Your task to perform on an android device: delete a single message in the gmail app Image 0: 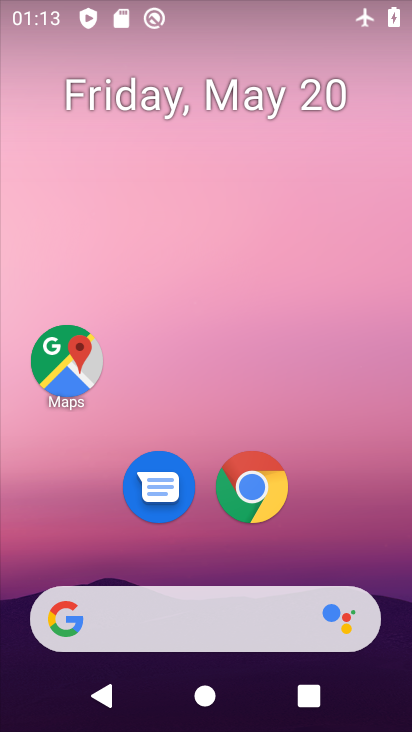
Step 0: drag from (355, 529) to (277, 83)
Your task to perform on an android device: delete a single message in the gmail app Image 1: 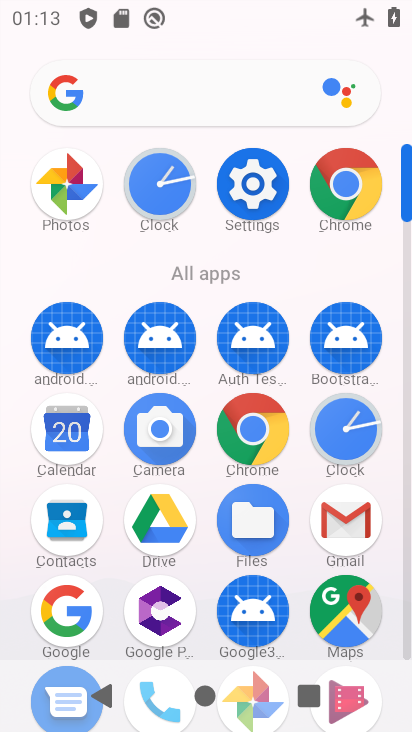
Step 1: drag from (9, 582) to (19, 244)
Your task to perform on an android device: delete a single message in the gmail app Image 2: 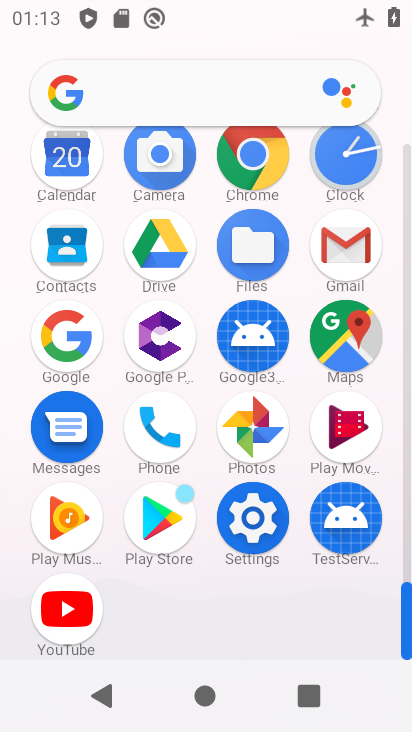
Step 2: drag from (17, 565) to (12, 259)
Your task to perform on an android device: delete a single message in the gmail app Image 3: 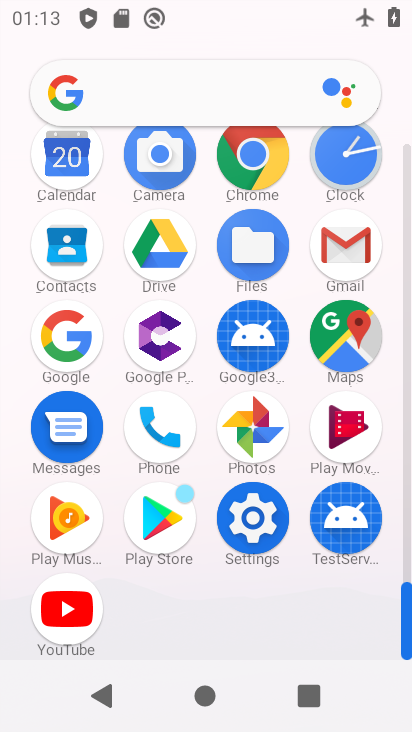
Step 3: click (345, 239)
Your task to perform on an android device: delete a single message in the gmail app Image 4: 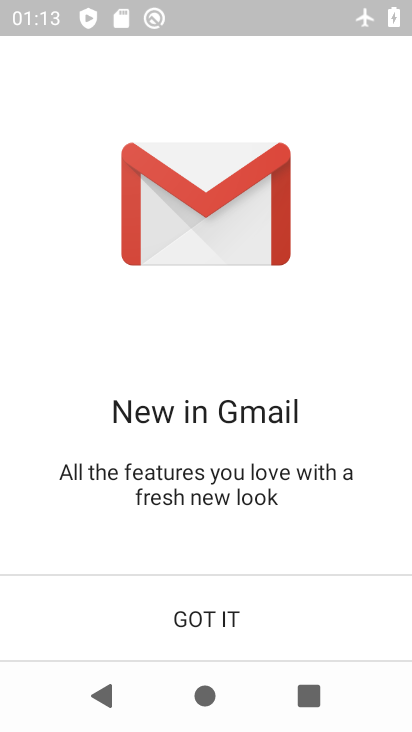
Step 4: click (260, 629)
Your task to perform on an android device: delete a single message in the gmail app Image 5: 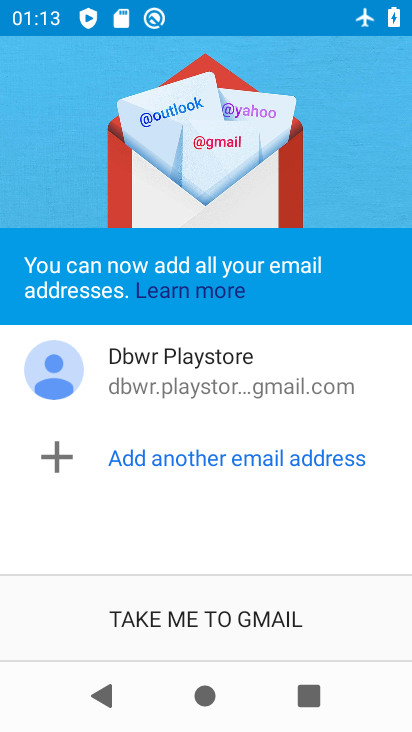
Step 5: click (228, 603)
Your task to perform on an android device: delete a single message in the gmail app Image 6: 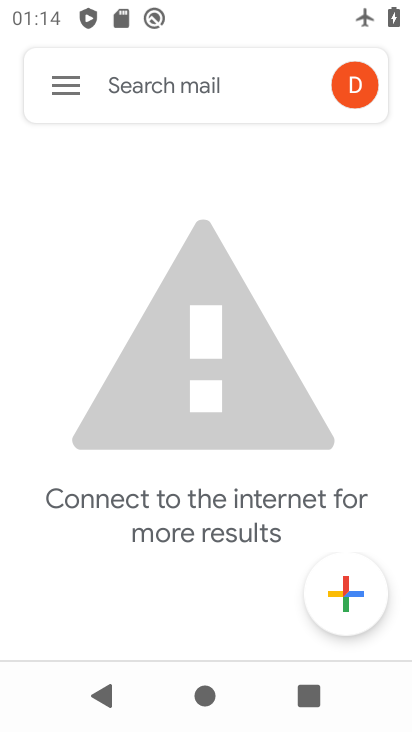
Step 6: click (45, 70)
Your task to perform on an android device: delete a single message in the gmail app Image 7: 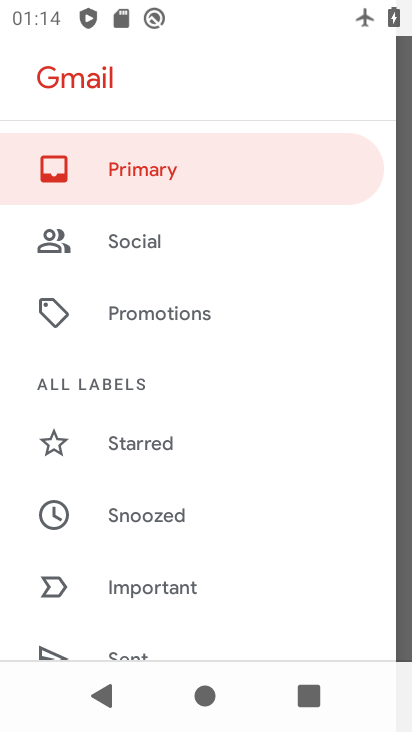
Step 7: drag from (186, 481) to (184, 170)
Your task to perform on an android device: delete a single message in the gmail app Image 8: 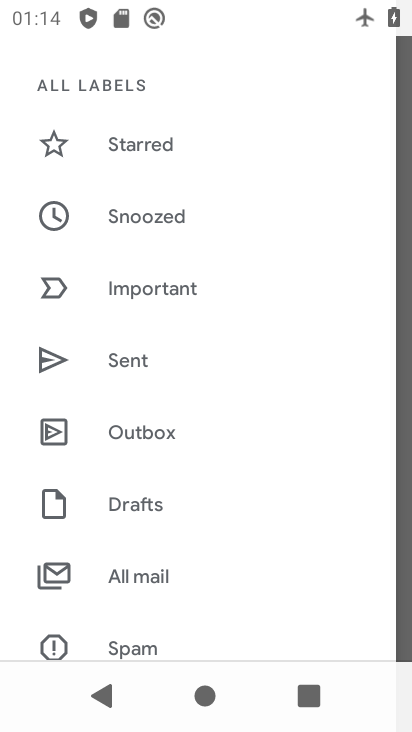
Step 8: drag from (175, 544) to (166, 230)
Your task to perform on an android device: delete a single message in the gmail app Image 9: 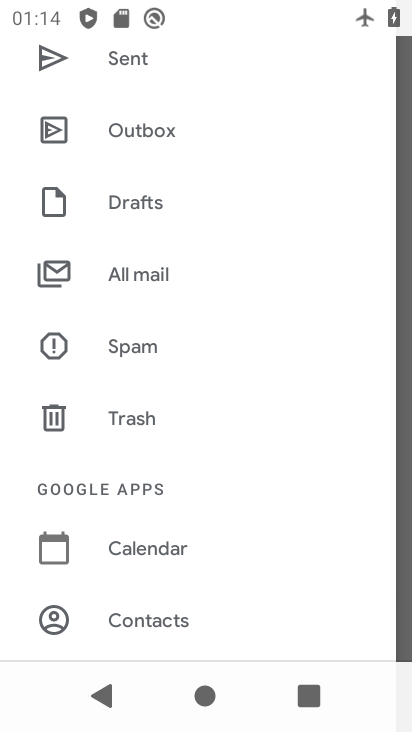
Step 9: drag from (153, 548) to (179, 127)
Your task to perform on an android device: delete a single message in the gmail app Image 10: 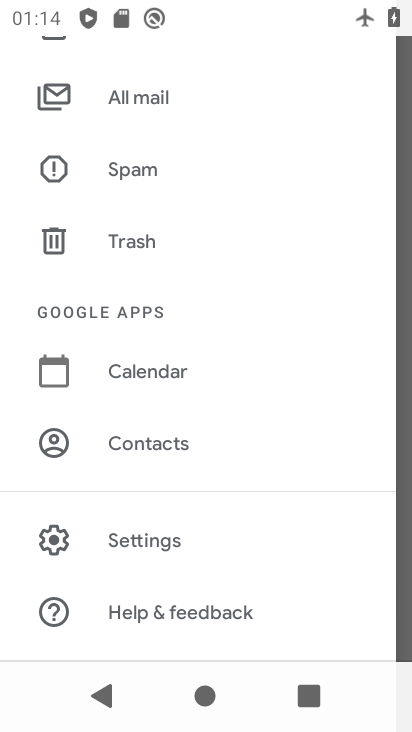
Step 10: drag from (217, 199) to (237, 548)
Your task to perform on an android device: delete a single message in the gmail app Image 11: 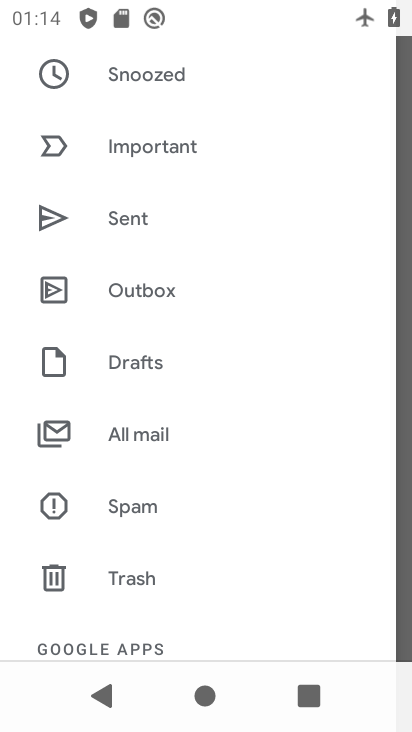
Step 11: click (141, 427)
Your task to perform on an android device: delete a single message in the gmail app Image 12: 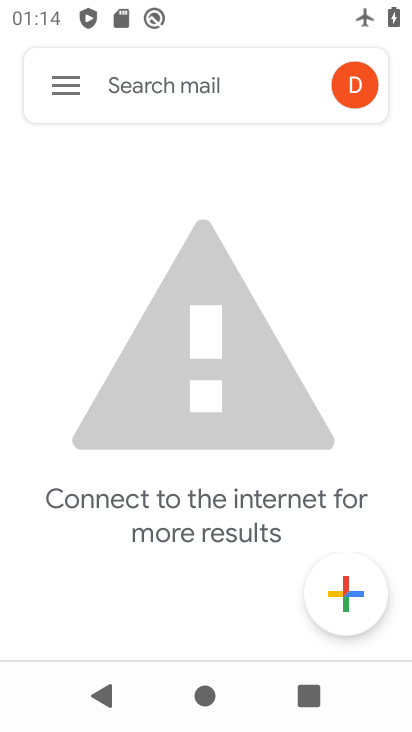
Step 12: task complete